Your task to perform on an android device: turn notification dots off Image 0: 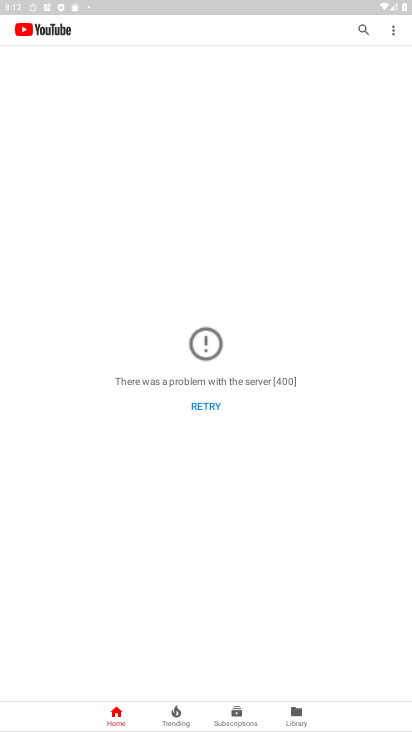
Step 0: press home button
Your task to perform on an android device: turn notification dots off Image 1: 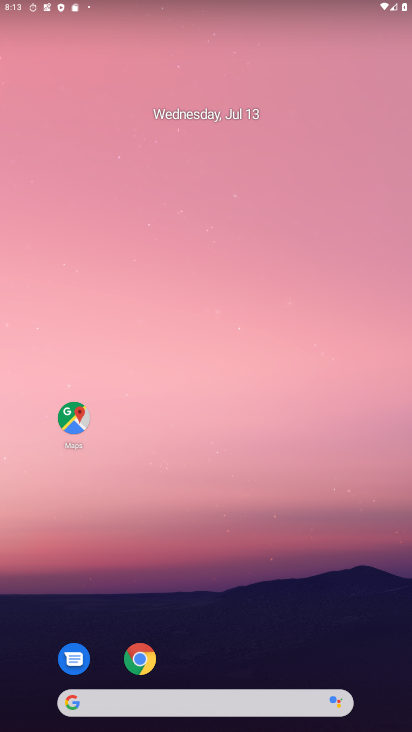
Step 1: drag from (285, 655) to (200, 219)
Your task to perform on an android device: turn notification dots off Image 2: 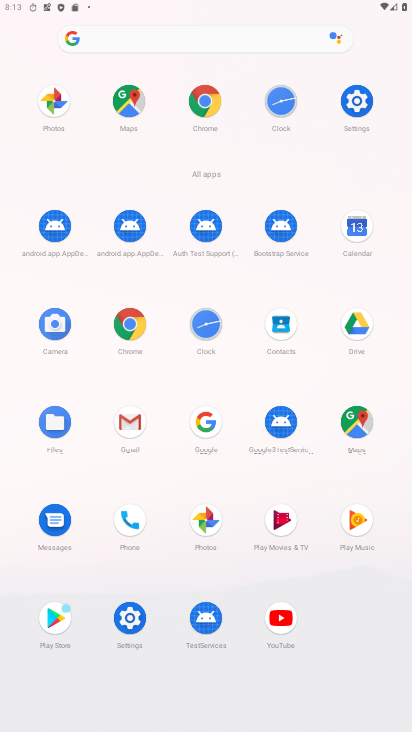
Step 2: click (355, 103)
Your task to perform on an android device: turn notification dots off Image 3: 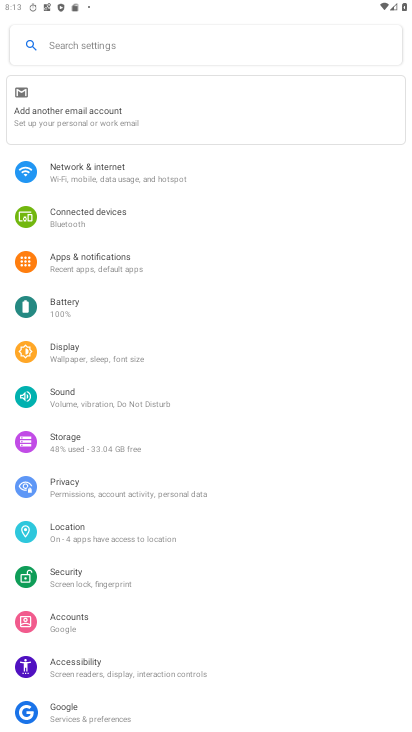
Step 3: click (188, 273)
Your task to perform on an android device: turn notification dots off Image 4: 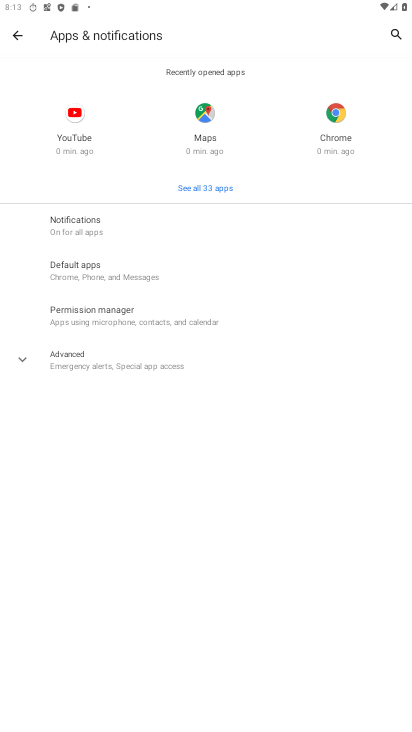
Step 4: click (229, 230)
Your task to perform on an android device: turn notification dots off Image 5: 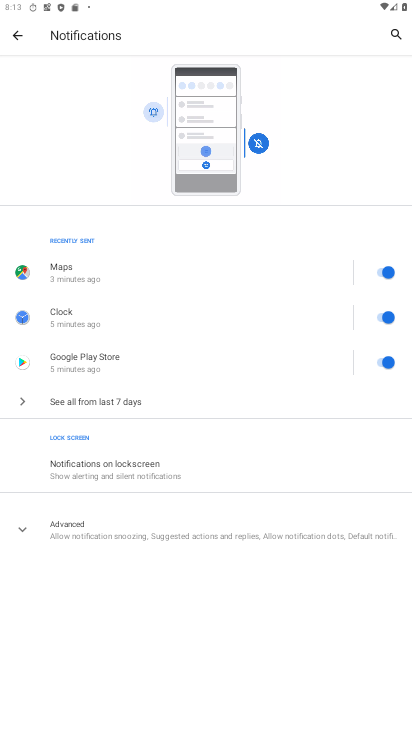
Step 5: click (217, 537)
Your task to perform on an android device: turn notification dots off Image 6: 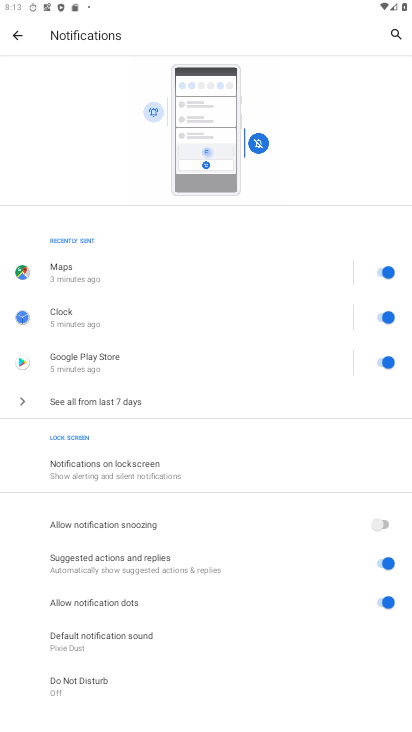
Step 6: click (378, 599)
Your task to perform on an android device: turn notification dots off Image 7: 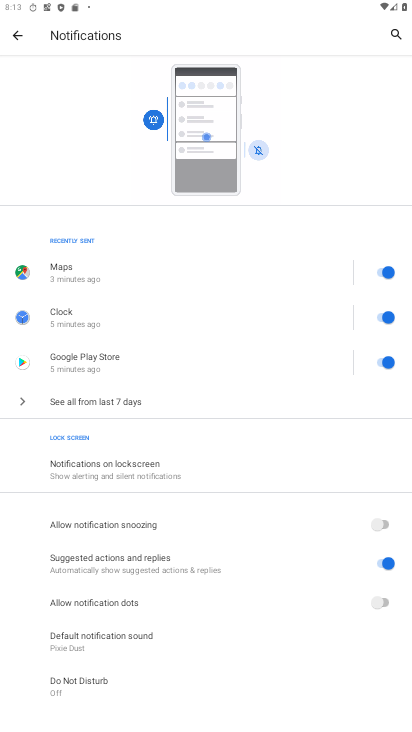
Step 7: task complete